Your task to perform on an android device: turn pop-ups off in chrome Image 0: 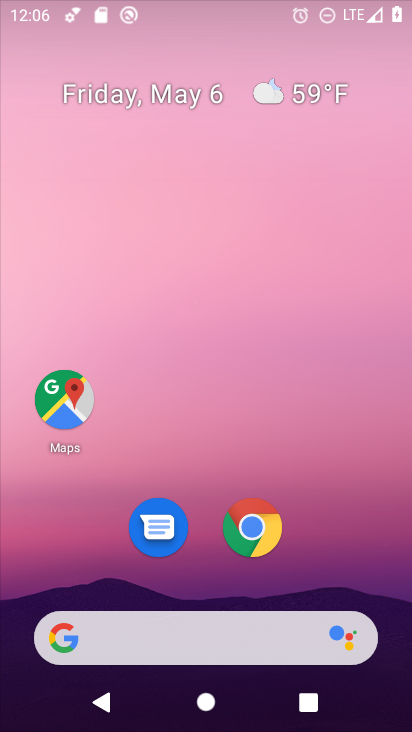
Step 0: drag from (255, 695) to (276, 146)
Your task to perform on an android device: turn pop-ups off in chrome Image 1: 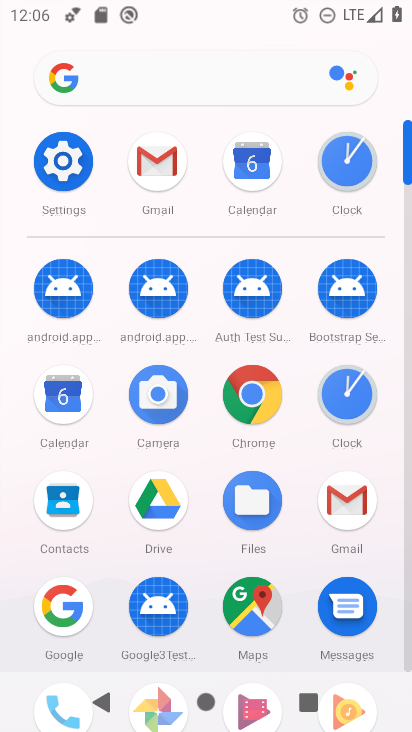
Step 1: click (252, 420)
Your task to perform on an android device: turn pop-ups off in chrome Image 2: 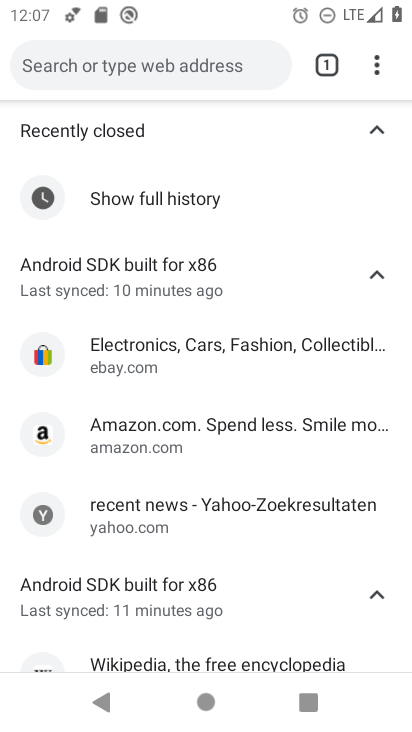
Step 2: drag from (382, 70) to (206, 577)
Your task to perform on an android device: turn pop-ups off in chrome Image 3: 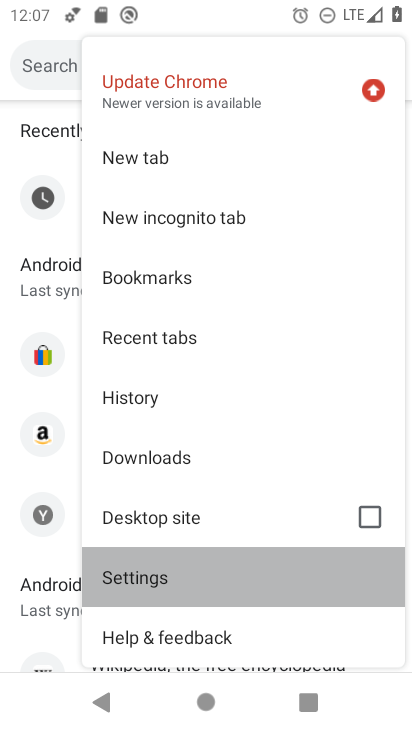
Step 3: click (206, 575)
Your task to perform on an android device: turn pop-ups off in chrome Image 4: 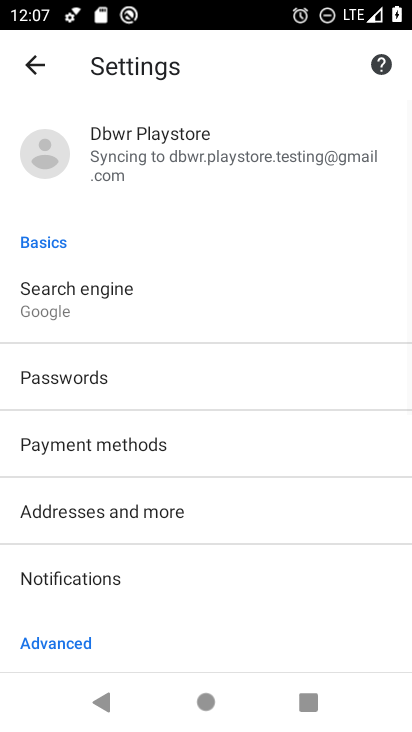
Step 4: drag from (303, 612) to (301, 7)
Your task to perform on an android device: turn pop-ups off in chrome Image 5: 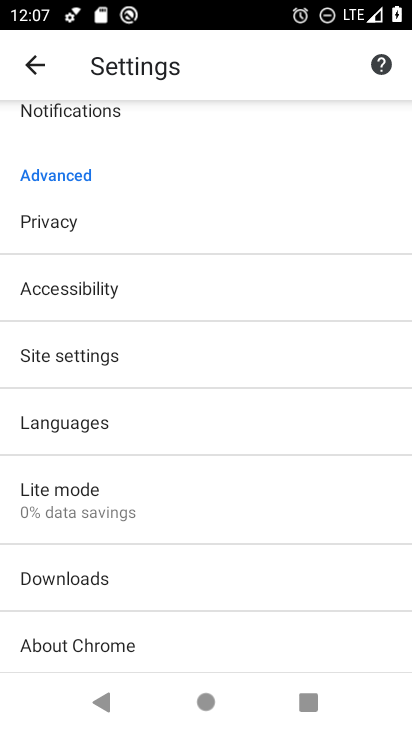
Step 5: click (33, 353)
Your task to perform on an android device: turn pop-ups off in chrome Image 6: 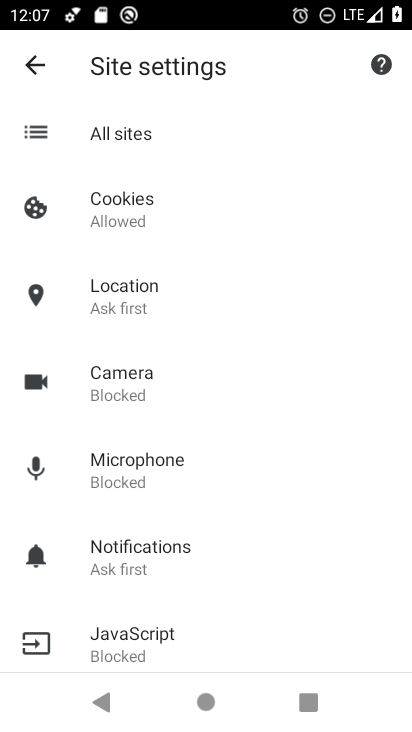
Step 6: drag from (243, 570) to (189, 31)
Your task to perform on an android device: turn pop-ups off in chrome Image 7: 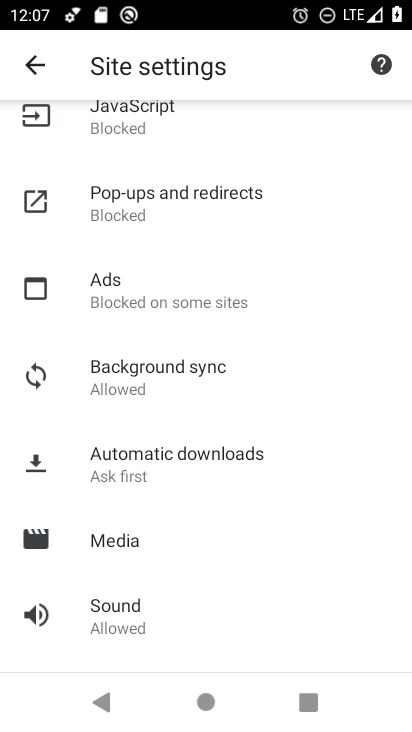
Step 7: click (255, 196)
Your task to perform on an android device: turn pop-ups off in chrome Image 8: 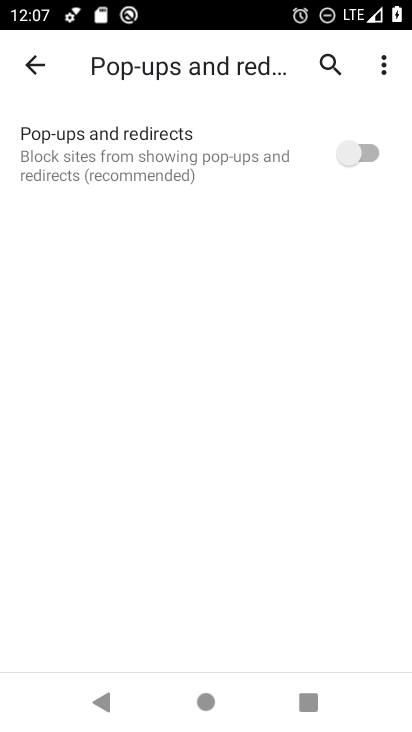
Step 8: task complete